Your task to perform on an android device: refresh tabs in the chrome app Image 0: 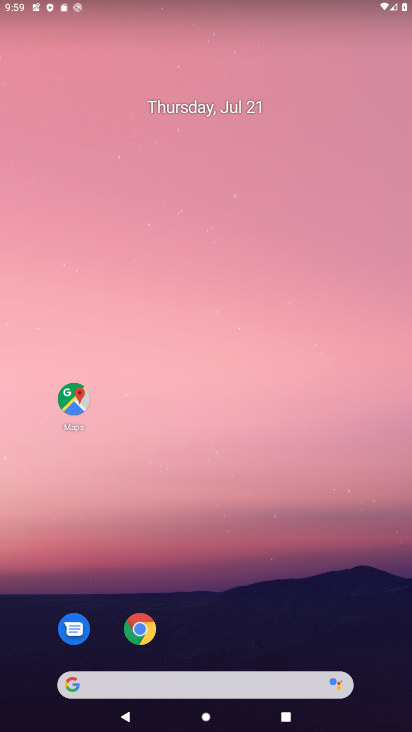
Step 0: press home button
Your task to perform on an android device: refresh tabs in the chrome app Image 1: 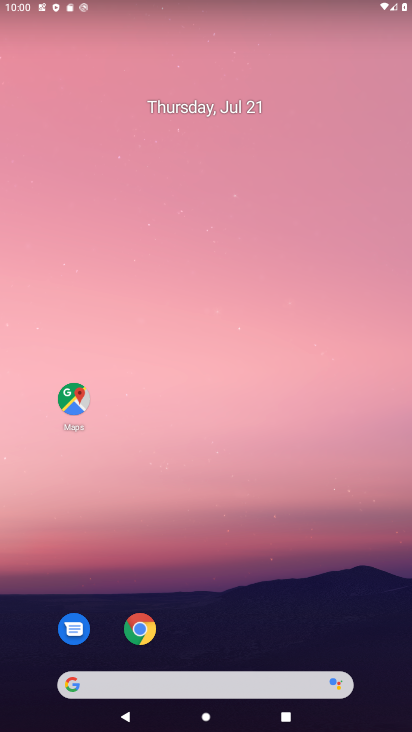
Step 1: click (142, 618)
Your task to perform on an android device: refresh tabs in the chrome app Image 2: 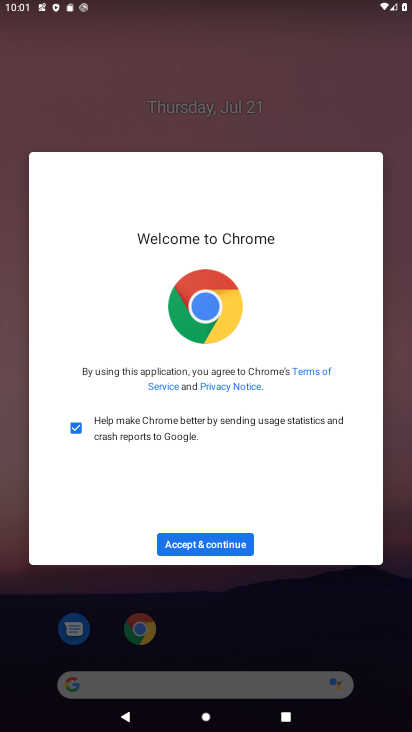
Step 2: click (196, 539)
Your task to perform on an android device: refresh tabs in the chrome app Image 3: 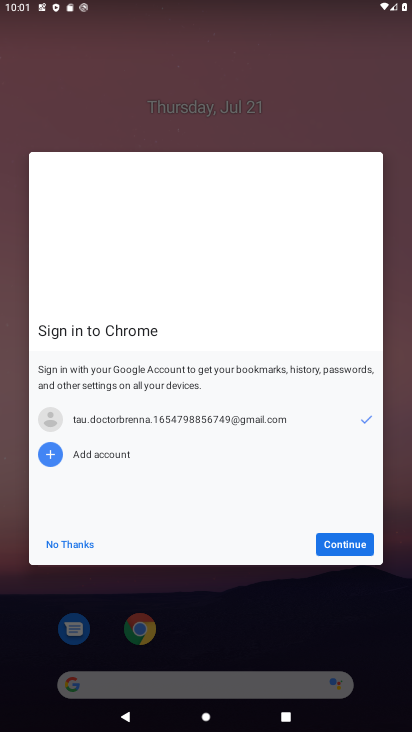
Step 3: click (347, 550)
Your task to perform on an android device: refresh tabs in the chrome app Image 4: 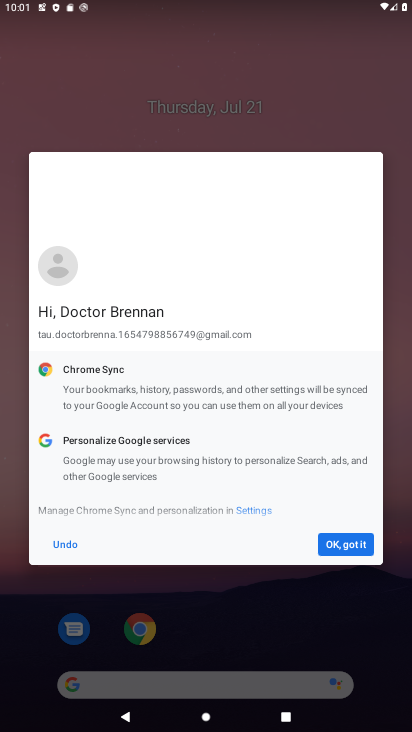
Step 4: click (355, 552)
Your task to perform on an android device: refresh tabs in the chrome app Image 5: 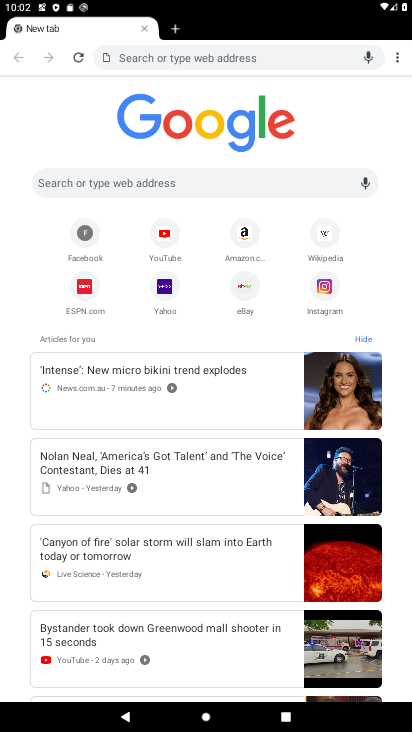
Step 5: drag from (395, 60) to (387, 7)
Your task to perform on an android device: refresh tabs in the chrome app Image 6: 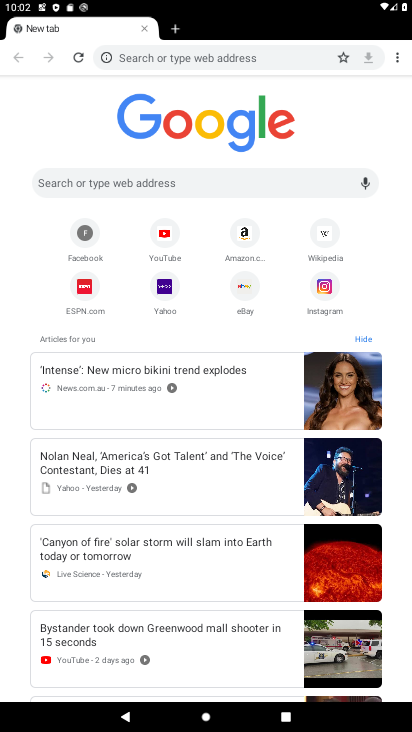
Step 6: click (77, 53)
Your task to perform on an android device: refresh tabs in the chrome app Image 7: 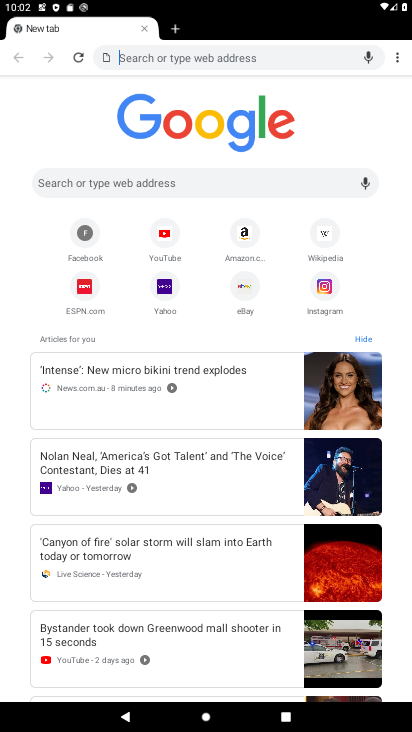
Step 7: task complete